Your task to perform on an android device: turn off picture-in-picture Image 0: 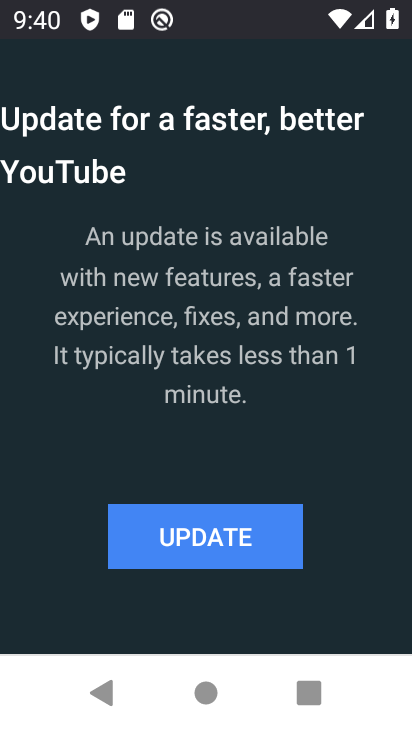
Step 0: press home button
Your task to perform on an android device: turn off picture-in-picture Image 1: 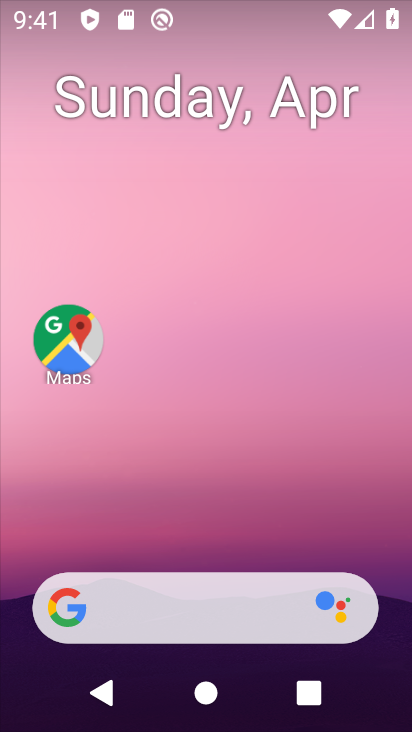
Step 1: drag from (230, 720) to (231, 141)
Your task to perform on an android device: turn off picture-in-picture Image 2: 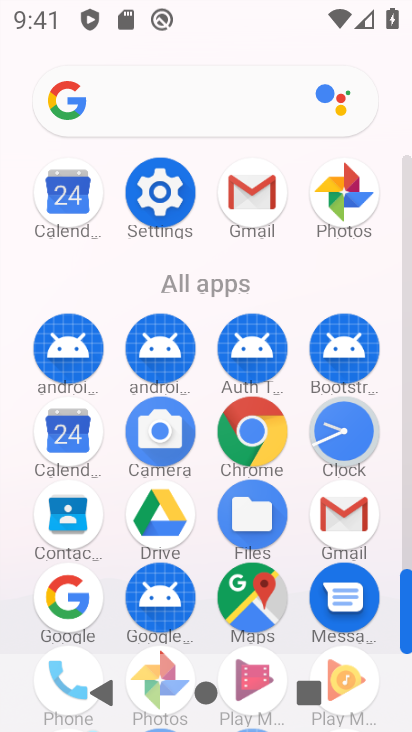
Step 2: click (163, 190)
Your task to perform on an android device: turn off picture-in-picture Image 3: 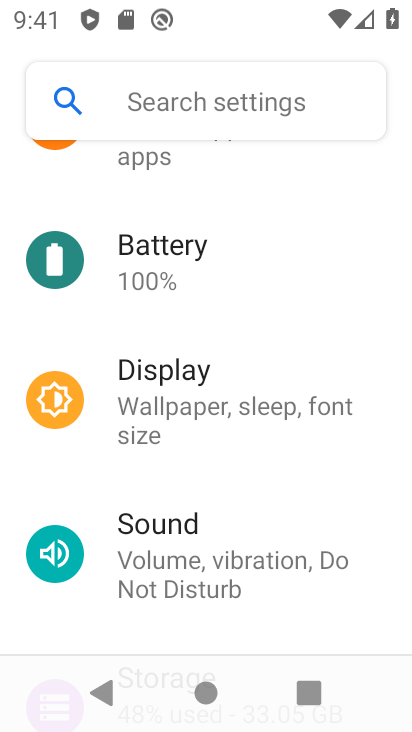
Step 3: drag from (244, 178) to (248, 518)
Your task to perform on an android device: turn off picture-in-picture Image 4: 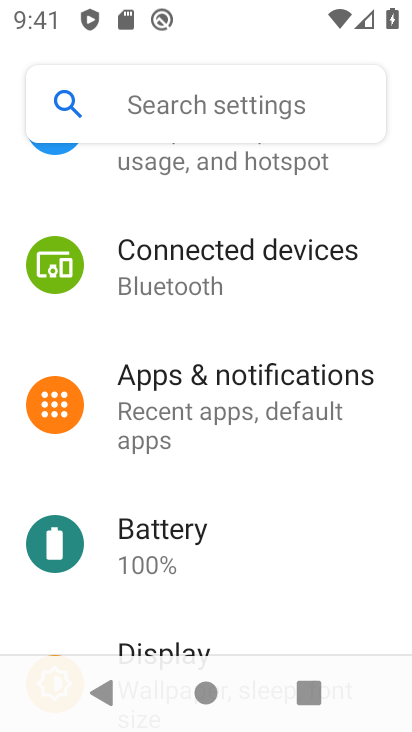
Step 4: drag from (267, 204) to (265, 463)
Your task to perform on an android device: turn off picture-in-picture Image 5: 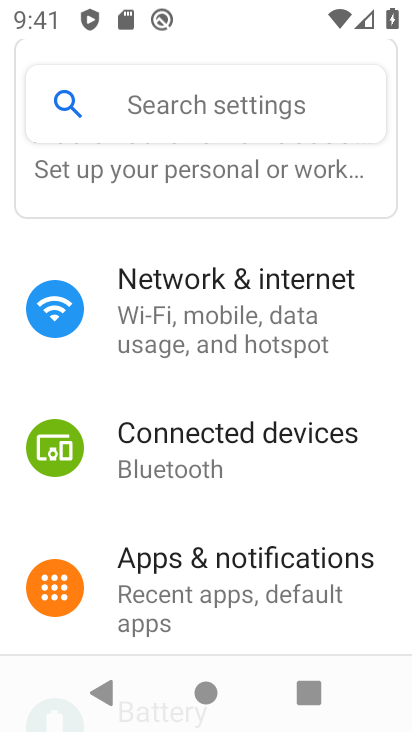
Step 5: click (260, 584)
Your task to perform on an android device: turn off picture-in-picture Image 6: 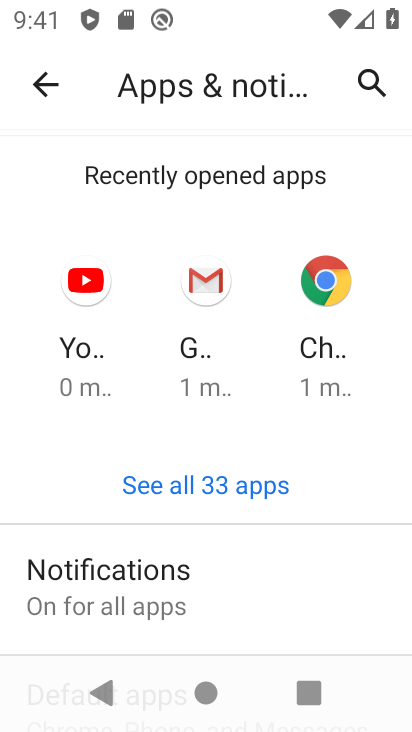
Step 6: drag from (268, 619) to (255, 325)
Your task to perform on an android device: turn off picture-in-picture Image 7: 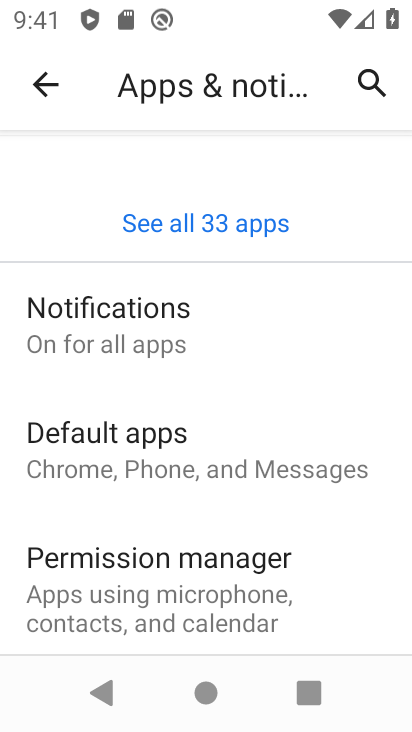
Step 7: drag from (319, 623) to (324, 236)
Your task to perform on an android device: turn off picture-in-picture Image 8: 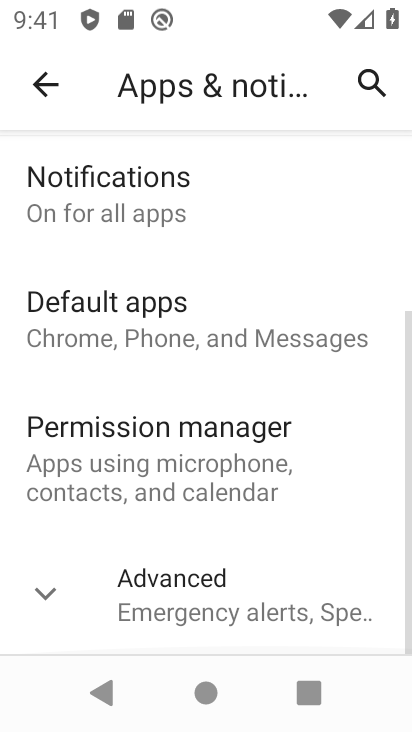
Step 8: click (195, 588)
Your task to perform on an android device: turn off picture-in-picture Image 9: 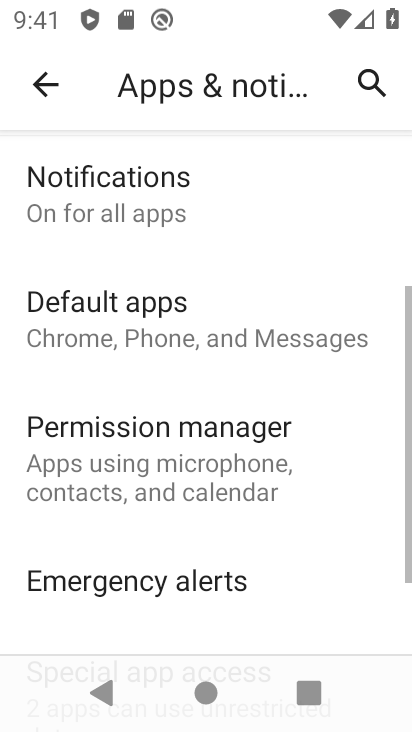
Step 9: drag from (279, 577) to (301, 209)
Your task to perform on an android device: turn off picture-in-picture Image 10: 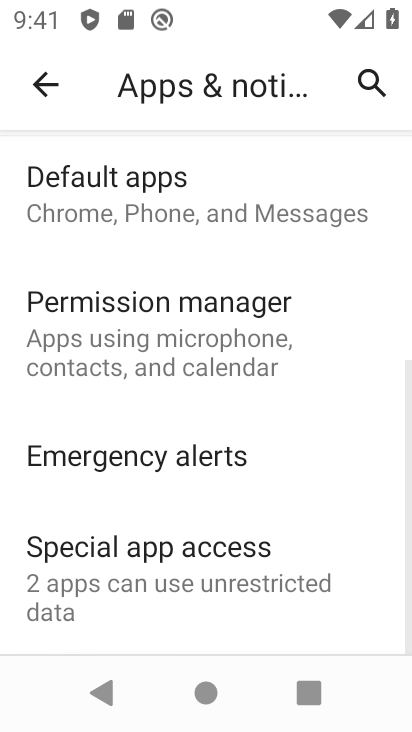
Step 10: click (165, 552)
Your task to perform on an android device: turn off picture-in-picture Image 11: 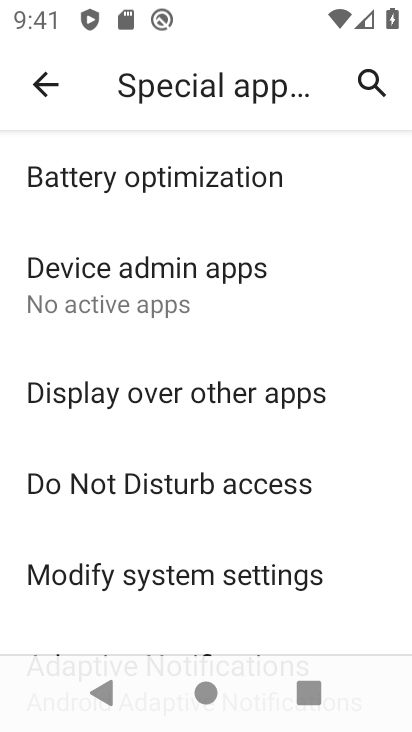
Step 11: drag from (343, 614) to (342, 241)
Your task to perform on an android device: turn off picture-in-picture Image 12: 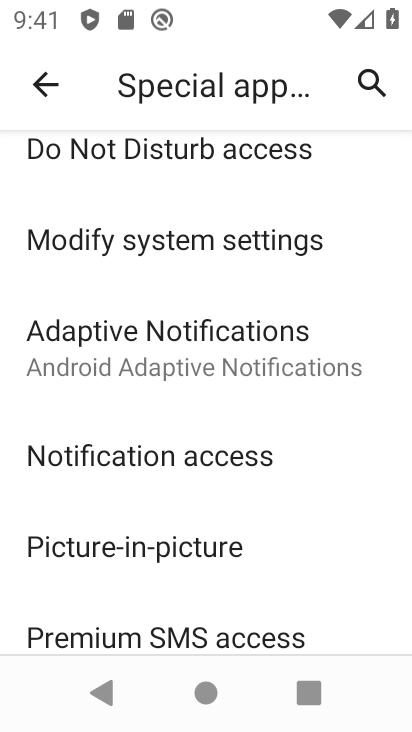
Step 12: click (136, 552)
Your task to perform on an android device: turn off picture-in-picture Image 13: 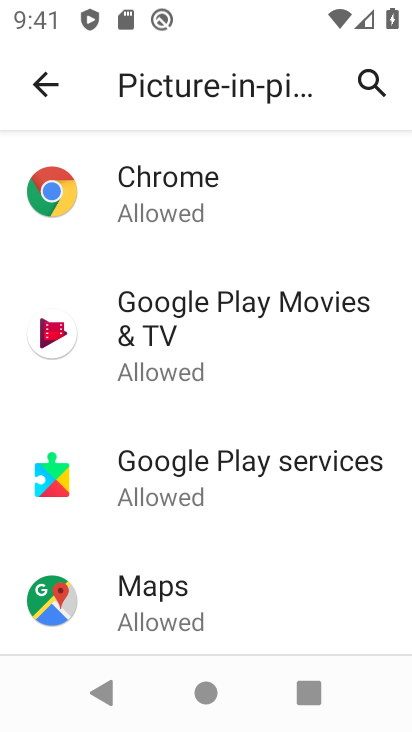
Step 13: drag from (291, 610) to (284, 215)
Your task to perform on an android device: turn off picture-in-picture Image 14: 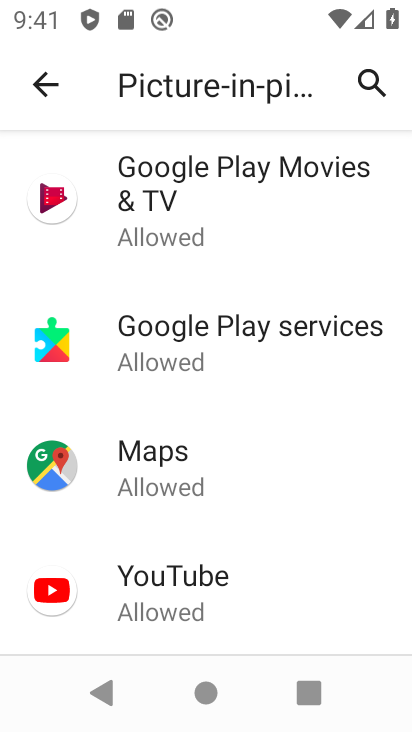
Step 14: click (169, 605)
Your task to perform on an android device: turn off picture-in-picture Image 15: 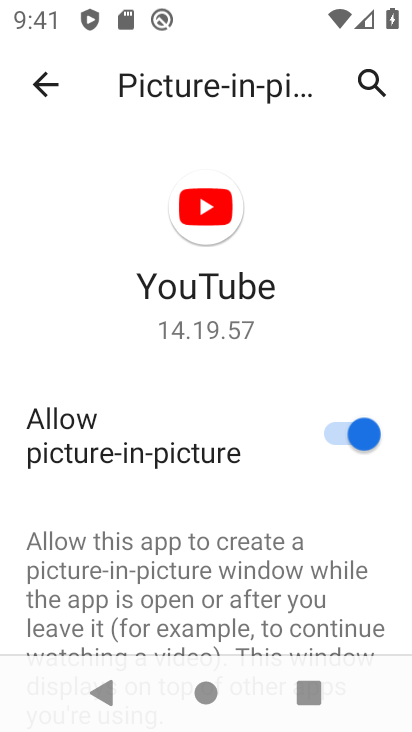
Step 15: click (338, 430)
Your task to perform on an android device: turn off picture-in-picture Image 16: 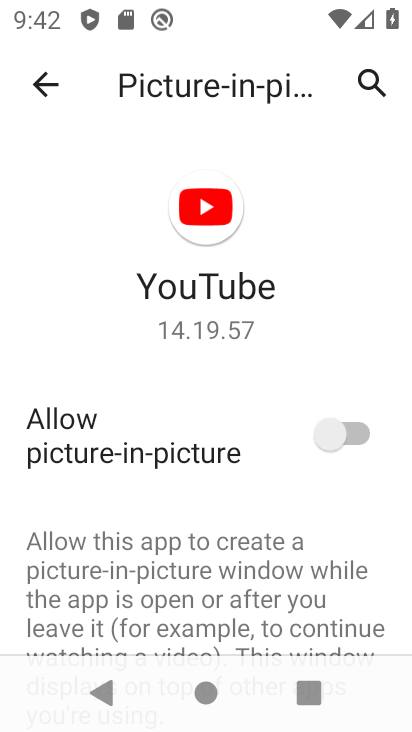
Step 16: task complete